Your task to perform on an android device: check android version Image 0: 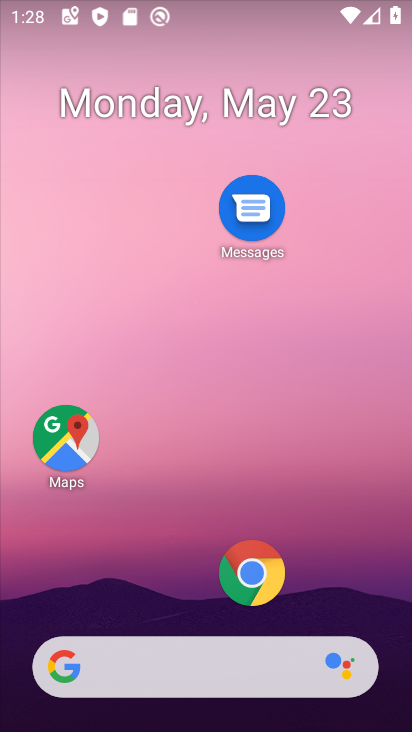
Step 0: drag from (182, 506) to (263, 92)
Your task to perform on an android device: check android version Image 1: 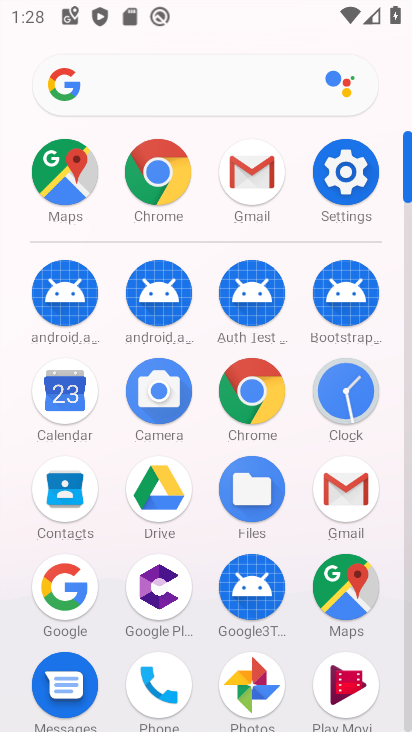
Step 1: click (347, 176)
Your task to perform on an android device: check android version Image 2: 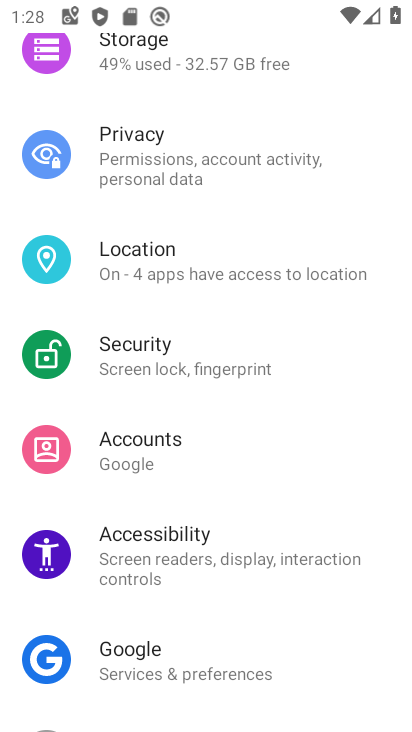
Step 2: drag from (307, 550) to (344, 145)
Your task to perform on an android device: check android version Image 3: 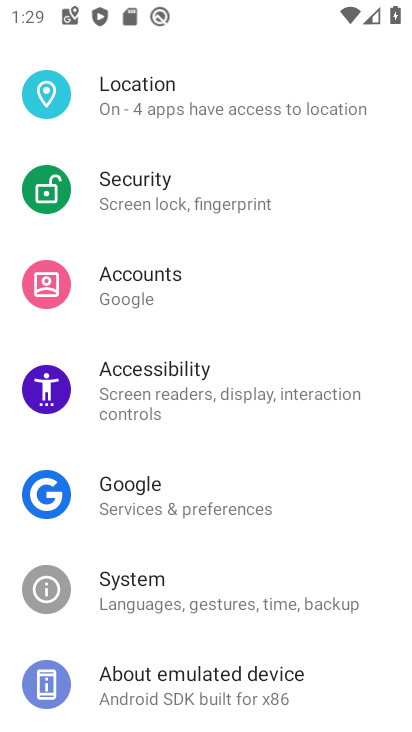
Step 3: click (170, 597)
Your task to perform on an android device: check android version Image 4: 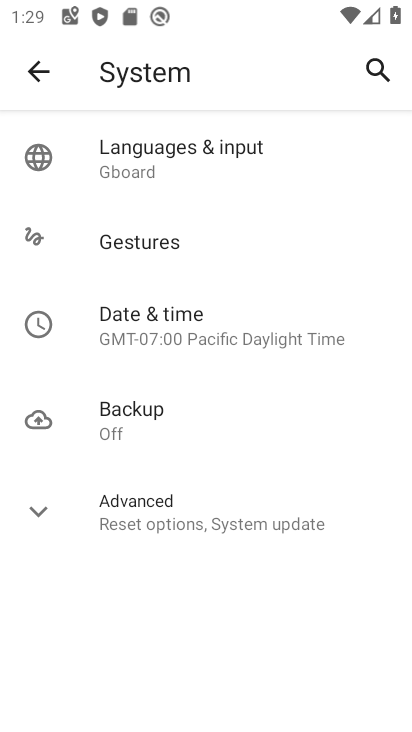
Step 4: click (192, 521)
Your task to perform on an android device: check android version Image 5: 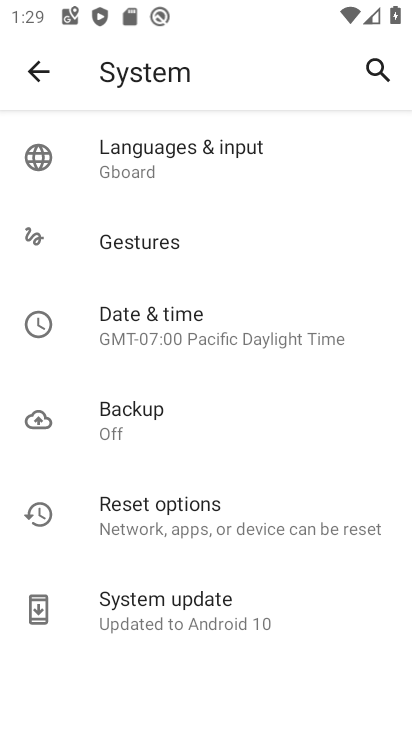
Step 5: click (221, 613)
Your task to perform on an android device: check android version Image 6: 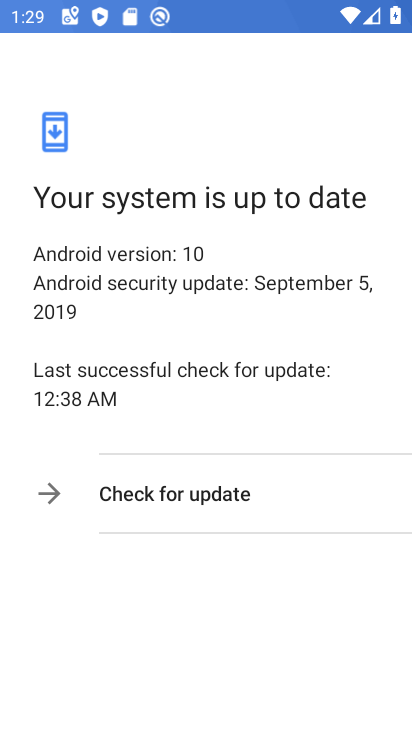
Step 6: task complete